Your task to perform on an android device: toggle javascript in the chrome app Image 0: 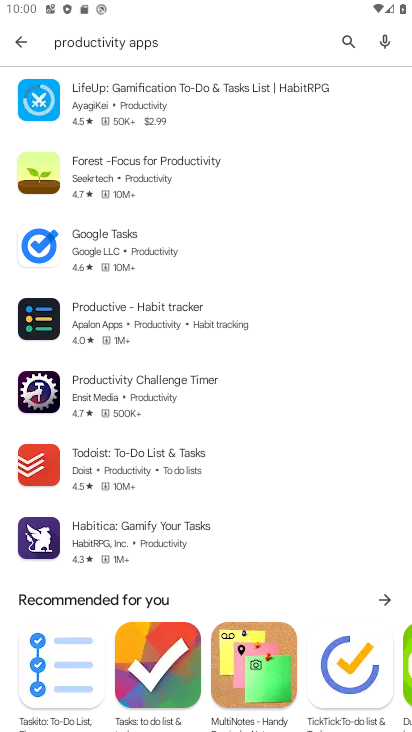
Step 0: drag from (330, 693) to (230, 176)
Your task to perform on an android device: toggle javascript in the chrome app Image 1: 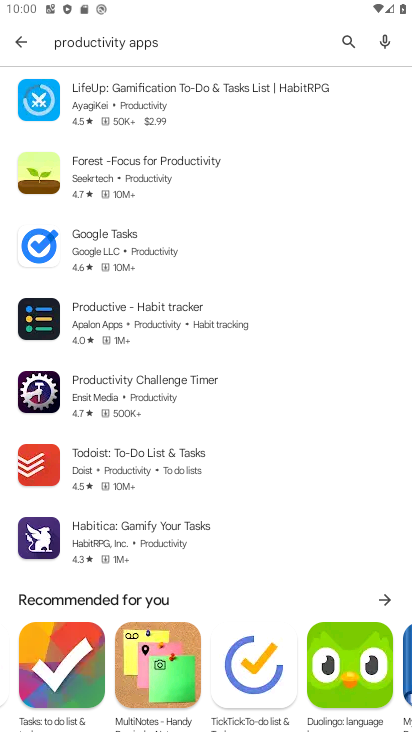
Step 1: press back button
Your task to perform on an android device: toggle javascript in the chrome app Image 2: 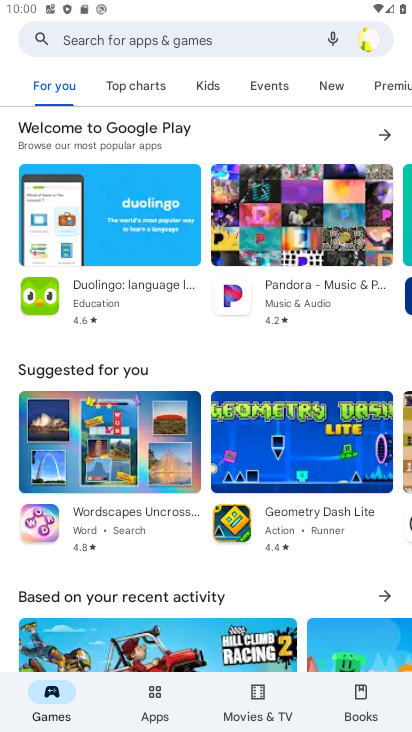
Step 2: press home button
Your task to perform on an android device: toggle javascript in the chrome app Image 3: 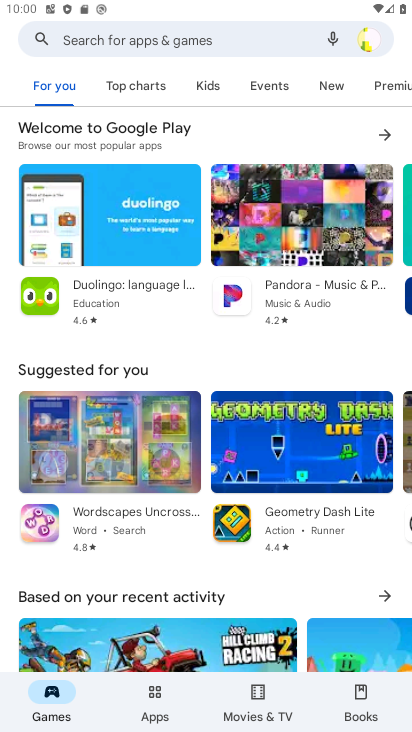
Step 3: press home button
Your task to perform on an android device: toggle javascript in the chrome app Image 4: 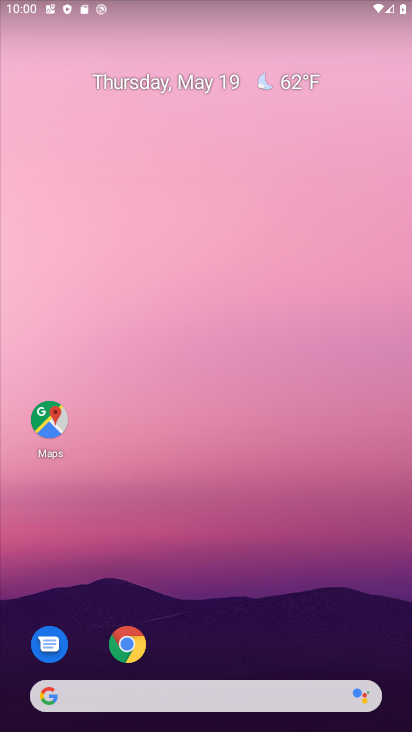
Step 4: drag from (266, 618) to (230, 41)
Your task to perform on an android device: toggle javascript in the chrome app Image 5: 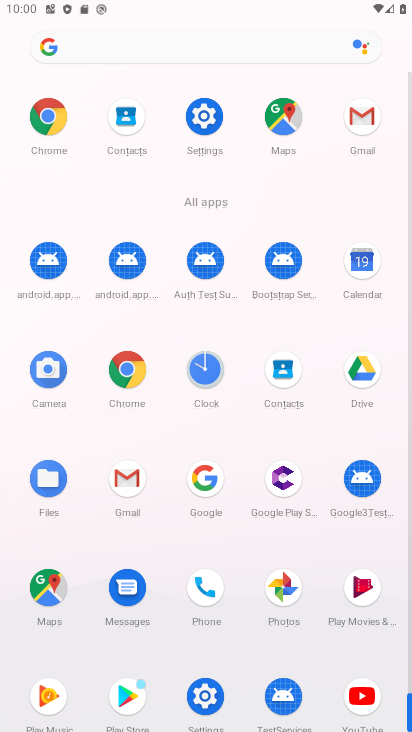
Step 5: click (55, 119)
Your task to perform on an android device: toggle javascript in the chrome app Image 6: 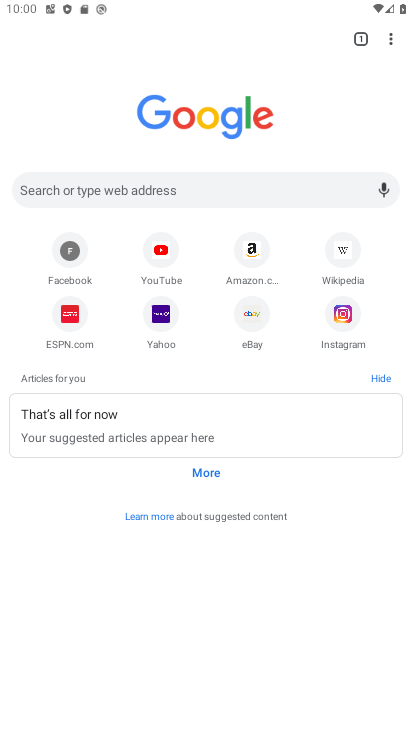
Step 6: drag from (391, 39) to (237, 357)
Your task to perform on an android device: toggle javascript in the chrome app Image 7: 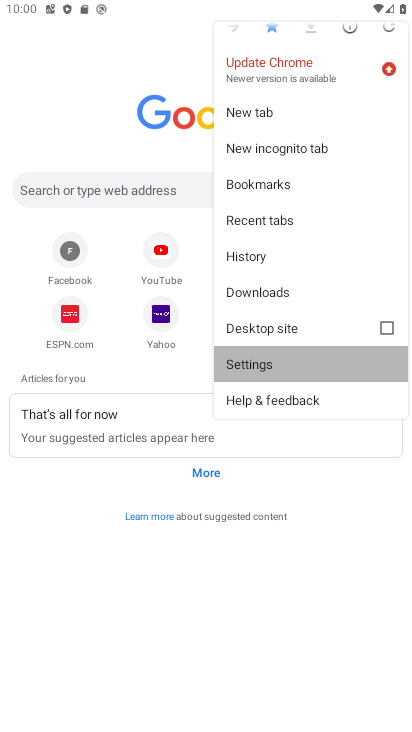
Step 7: click (238, 358)
Your task to perform on an android device: toggle javascript in the chrome app Image 8: 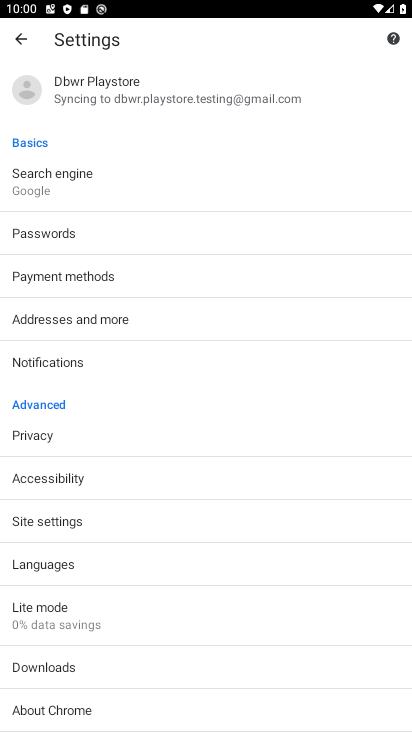
Step 8: click (35, 518)
Your task to perform on an android device: toggle javascript in the chrome app Image 9: 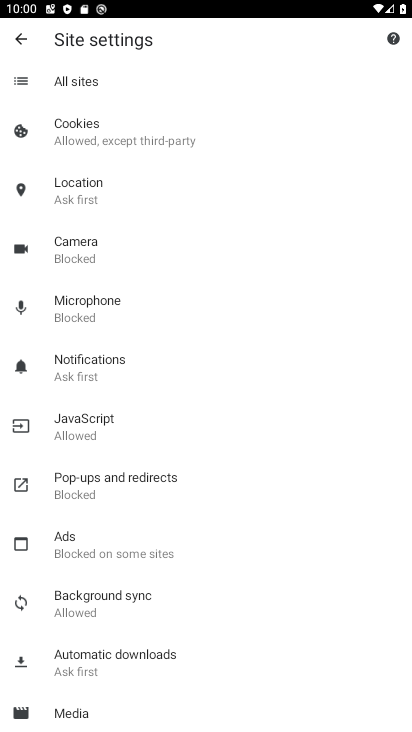
Step 9: click (90, 413)
Your task to perform on an android device: toggle javascript in the chrome app Image 10: 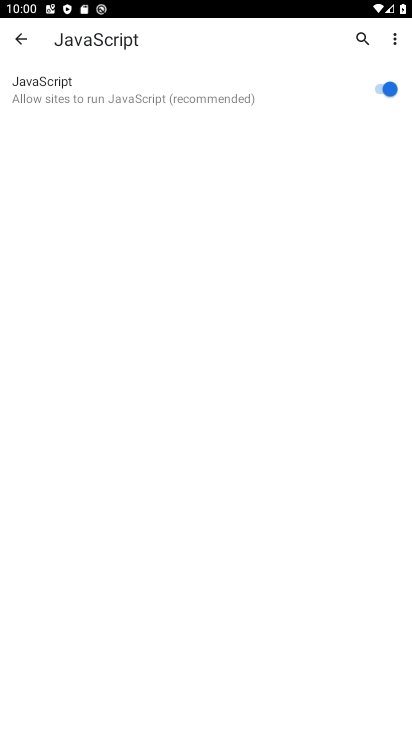
Step 10: task complete